Your task to perform on an android device: Clear the cart on amazon.com. Image 0: 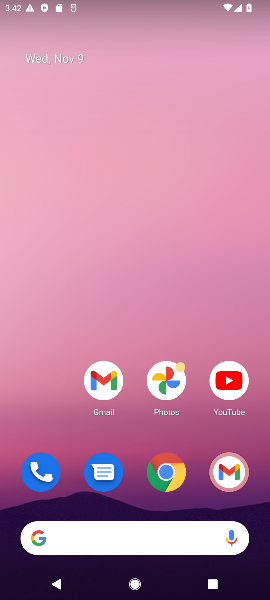
Step 0: click (98, 525)
Your task to perform on an android device: Clear the cart on amazon.com. Image 1: 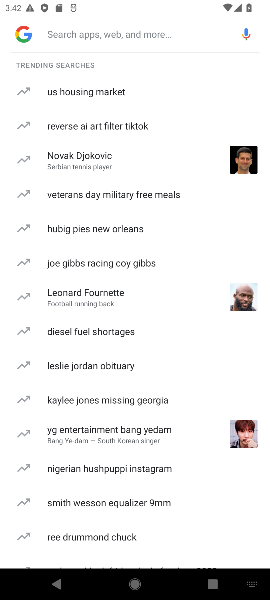
Step 1: type "amazon"
Your task to perform on an android device: Clear the cart on amazon.com. Image 2: 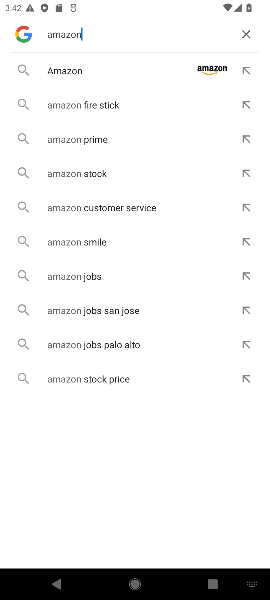
Step 2: click (56, 73)
Your task to perform on an android device: Clear the cart on amazon.com. Image 3: 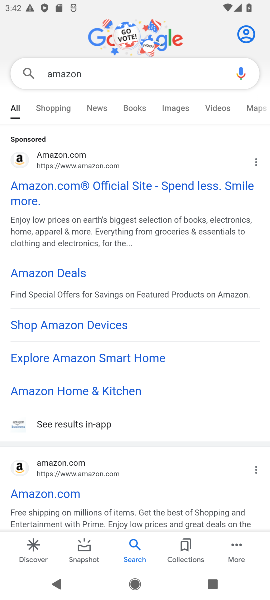
Step 3: click (54, 155)
Your task to perform on an android device: Clear the cart on amazon.com. Image 4: 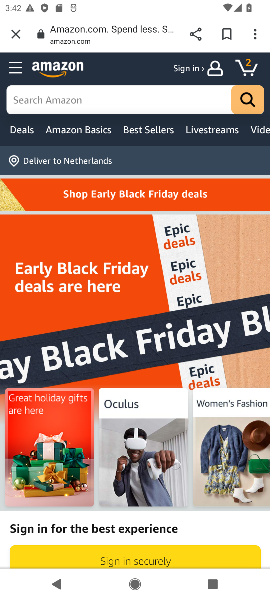
Step 4: click (247, 67)
Your task to perform on an android device: Clear the cart on amazon.com. Image 5: 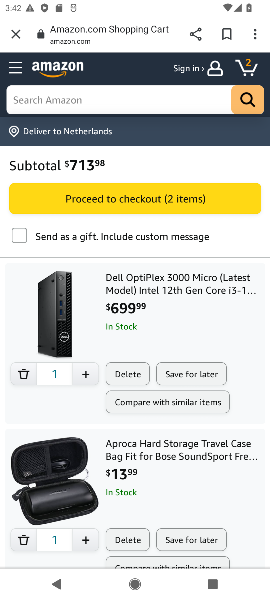
Step 5: click (124, 372)
Your task to perform on an android device: Clear the cart on amazon.com. Image 6: 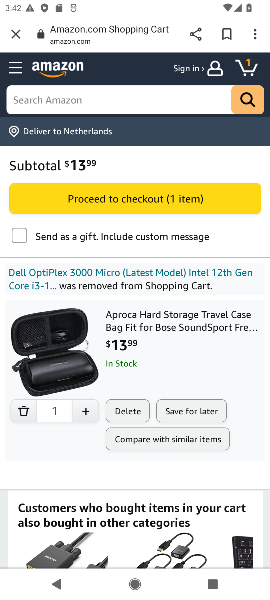
Step 6: click (121, 408)
Your task to perform on an android device: Clear the cart on amazon.com. Image 7: 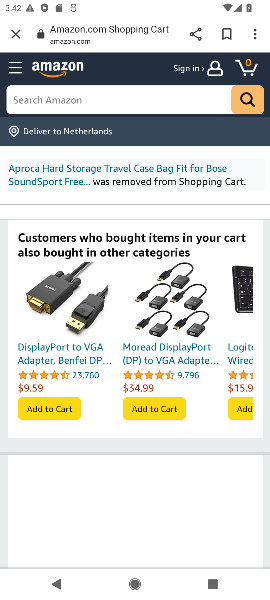
Step 7: task complete